Your task to perform on an android device: Open calendar and show me the first week of next month Image 0: 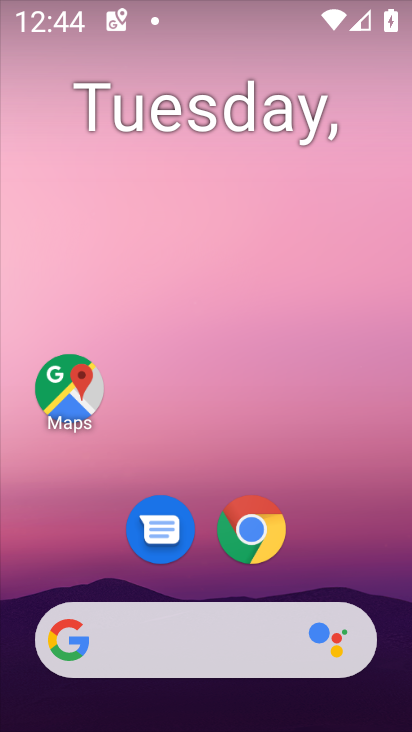
Step 0: drag from (201, 563) to (233, 134)
Your task to perform on an android device: Open calendar and show me the first week of next month Image 1: 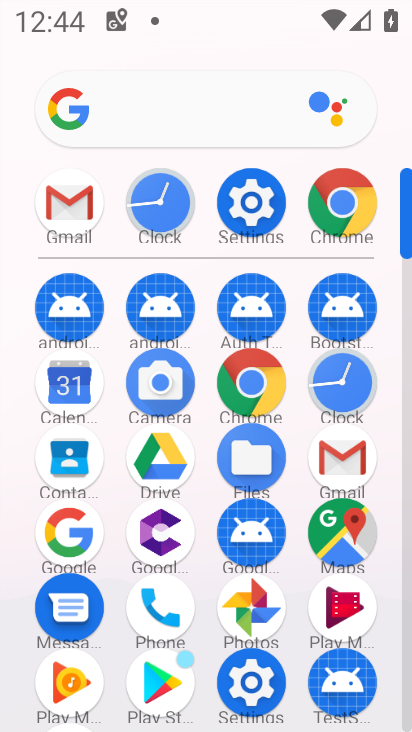
Step 1: click (56, 391)
Your task to perform on an android device: Open calendar and show me the first week of next month Image 2: 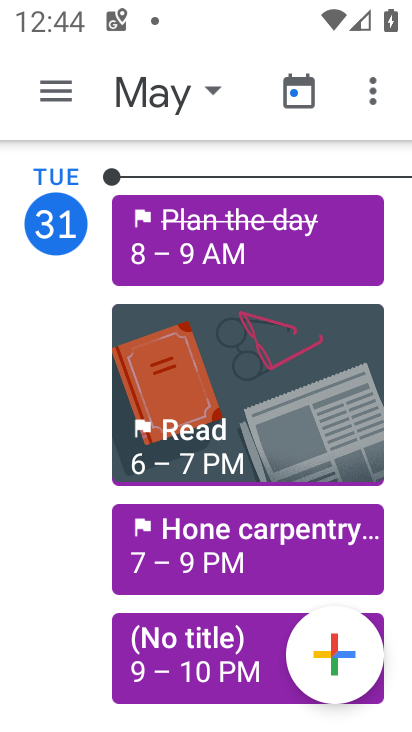
Step 2: click (184, 89)
Your task to perform on an android device: Open calendar and show me the first week of next month Image 3: 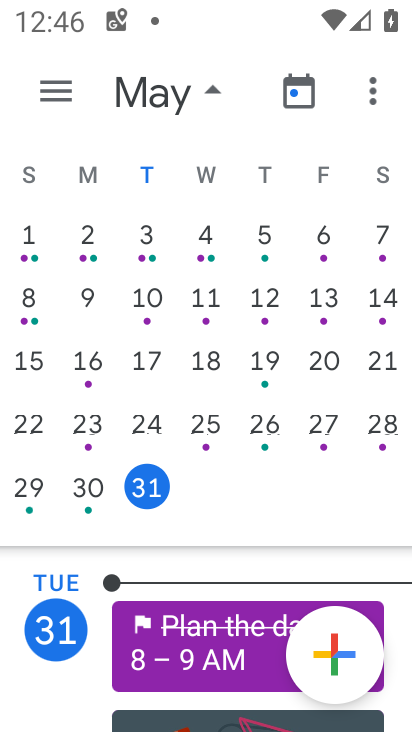
Step 3: drag from (384, 320) to (38, 289)
Your task to perform on an android device: Open calendar and show me the first week of next month Image 4: 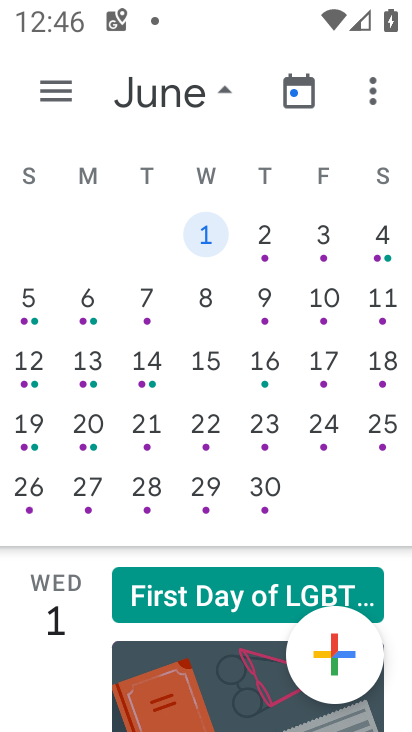
Step 4: click (205, 226)
Your task to perform on an android device: Open calendar and show me the first week of next month Image 5: 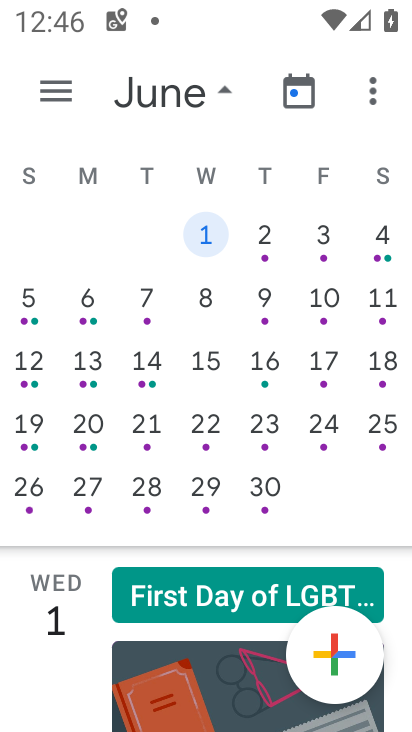
Step 5: task complete